Your task to perform on an android device: Open Amazon Image 0: 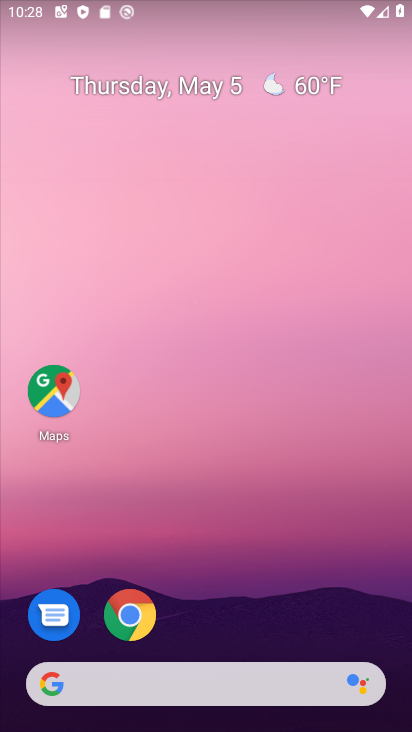
Step 0: click (132, 618)
Your task to perform on an android device: Open Amazon Image 1: 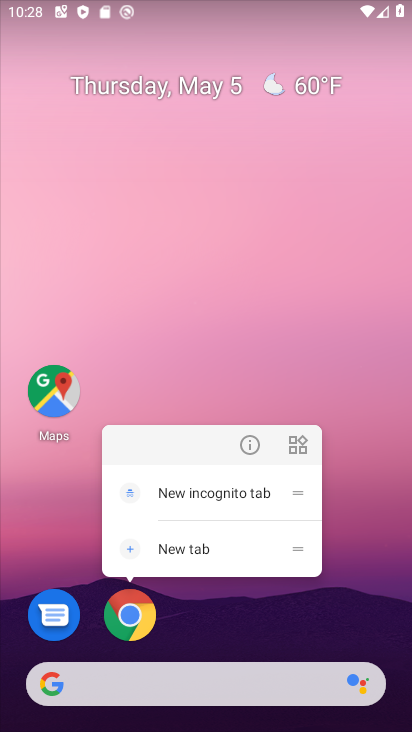
Step 1: click (373, 344)
Your task to perform on an android device: Open Amazon Image 2: 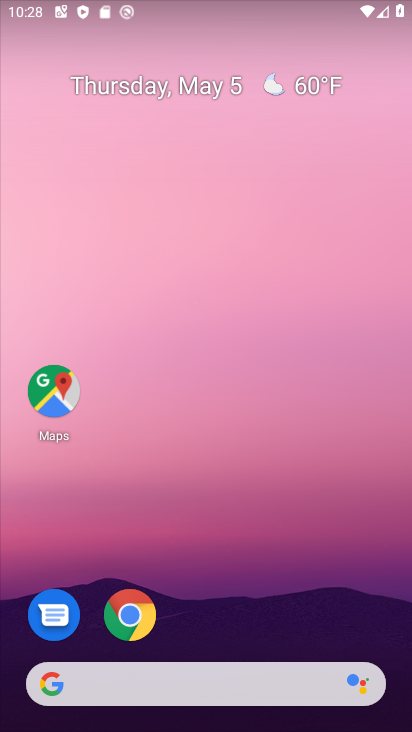
Step 2: click (132, 616)
Your task to perform on an android device: Open Amazon Image 3: 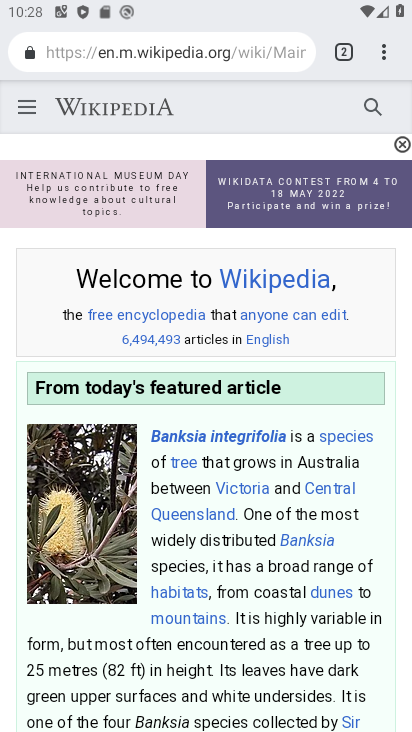
Step 3: press back button
Your task to perform on an android device: Open Amazon Image 4: 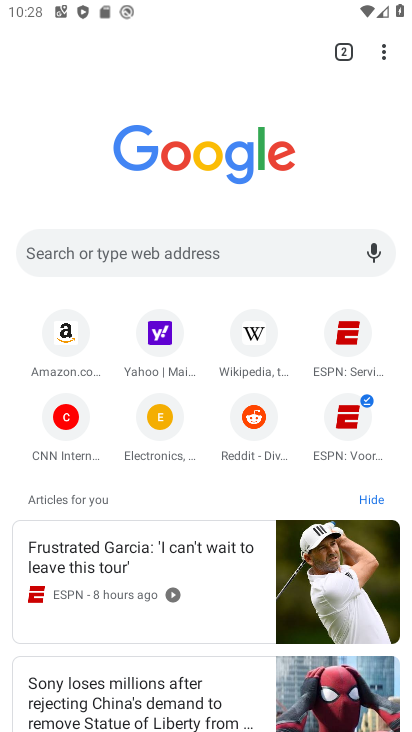
Step 4: click (69, 339)
Your task to perform on an android device: Open Amazon Image 5: 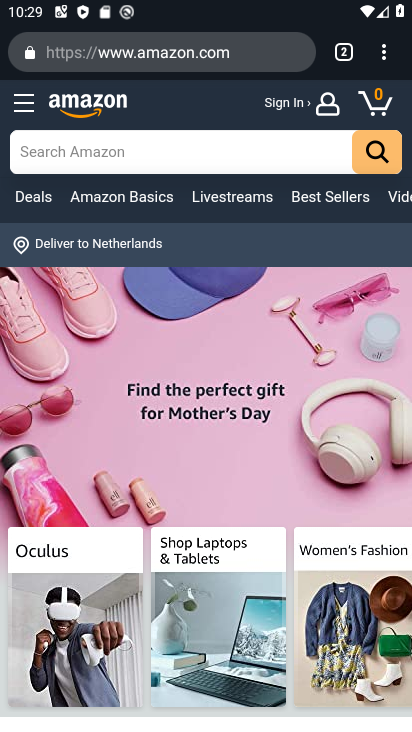
Step 5: task complete